Your task to perform on an android device: turn off data saver in the chrome app Image 0: 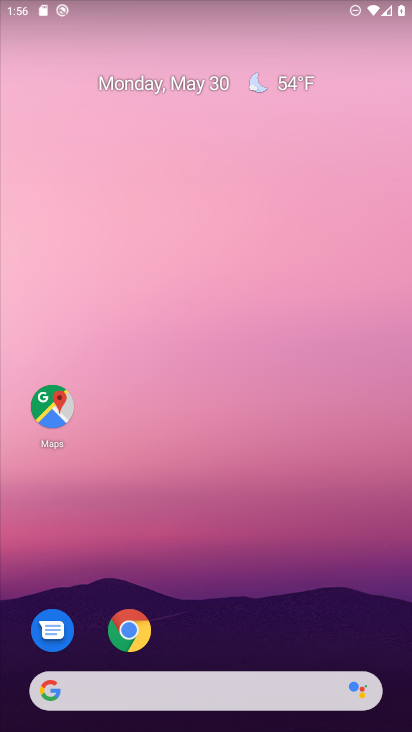
Step 0: drag from (239, 670) to (247, 256)
Your task to perform on an android device: turn off data saver in the chrome app Image 1: 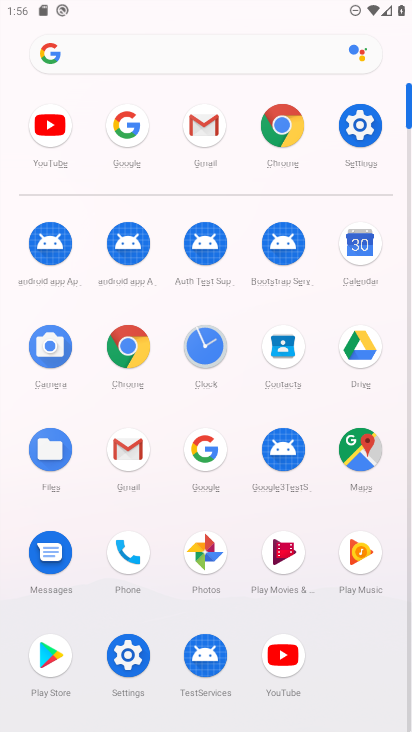
Step 1: click (134, 363)
Your task to perform on an android device: turn off data saver in the chrome app Image 2: 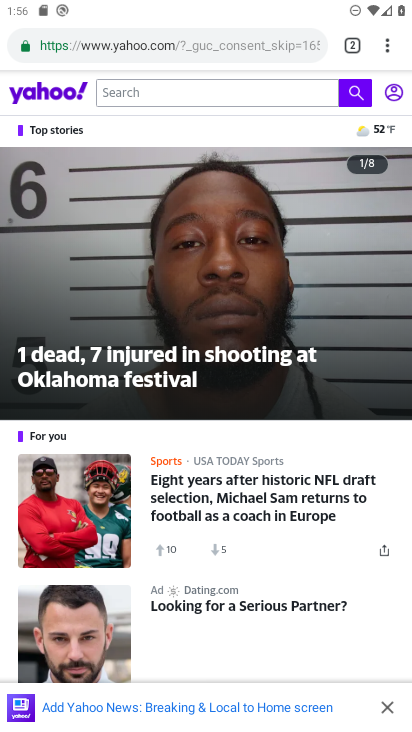
Step 2: drag from (385, 47) to (258, 546)
Your task to perform on an android device: turn off data saver in the chrome app Image 3: 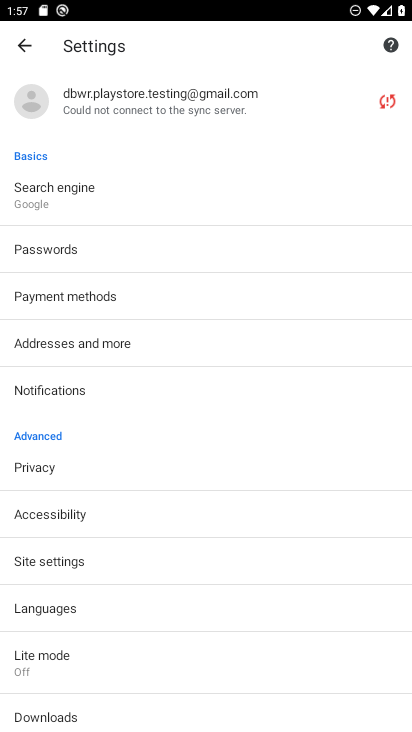
Step 3: click (114, 644)
Your task to perform on an android device: turn off data saver in the chrome app Image 4: 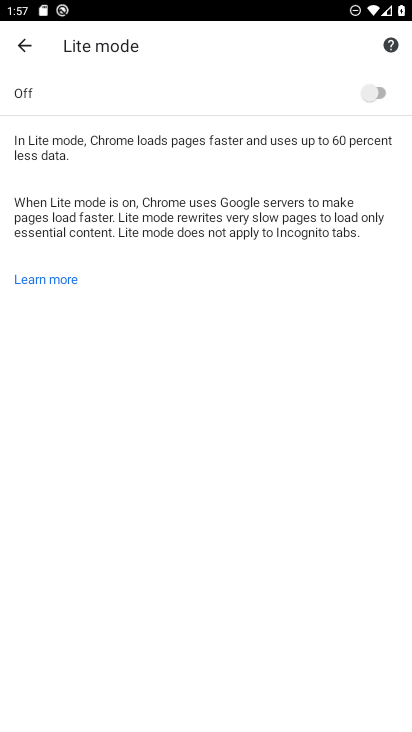
Step 4: click (378, 91)
Your task to perform on an android device: turn off data saver in the chrome app Image 5: 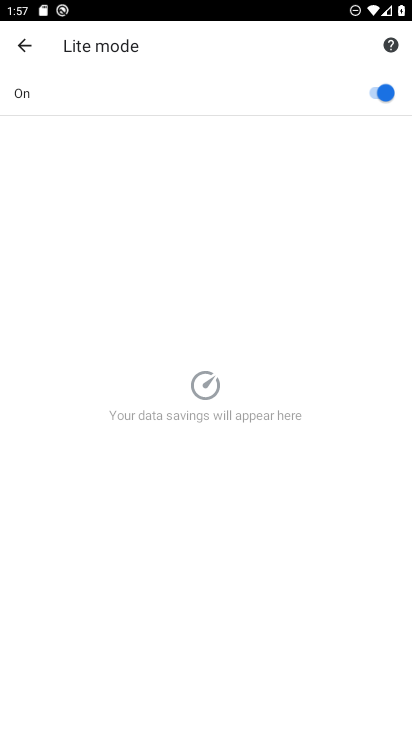
Step 5: task complete